Your task to perform on an android device: Turn on the flashlight Image 0: 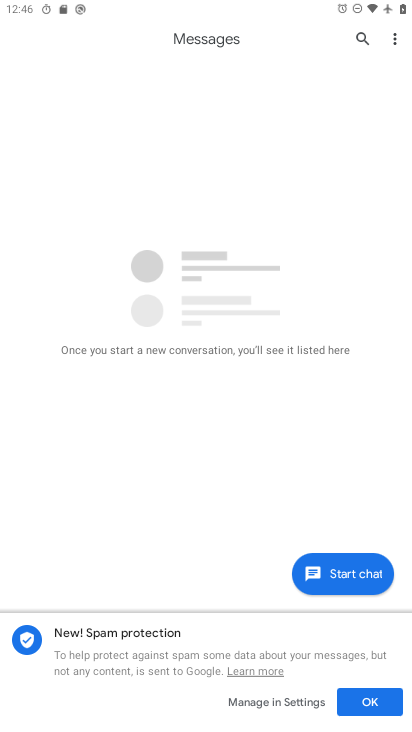
Step 0: press home button
Your task to perform on an android device: Turn on the flashlight Image 1: 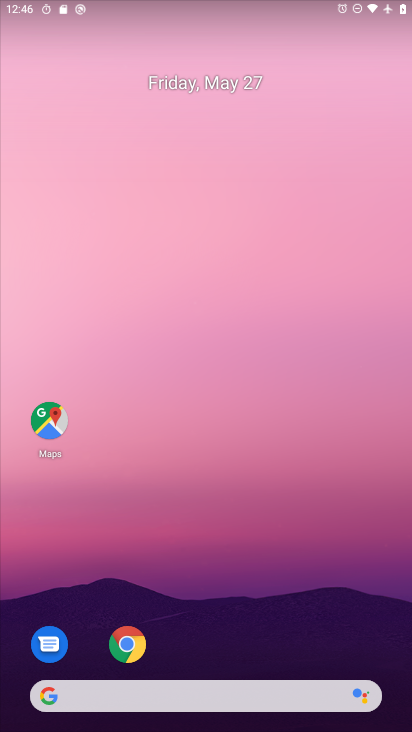
Step 1: drag from (220, 654) to (212, 259)
Your task to perform on an android device: Turn on the flashlight Image 2: 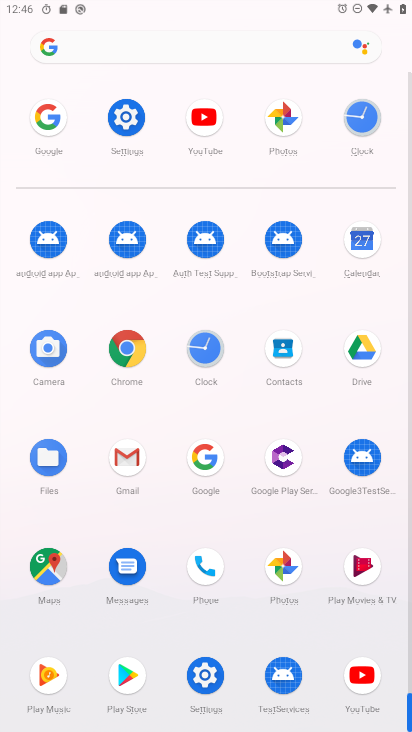
Step 2: click (108, 131)
Your task to perform on an android device: Turn on the flashlight Image 3: 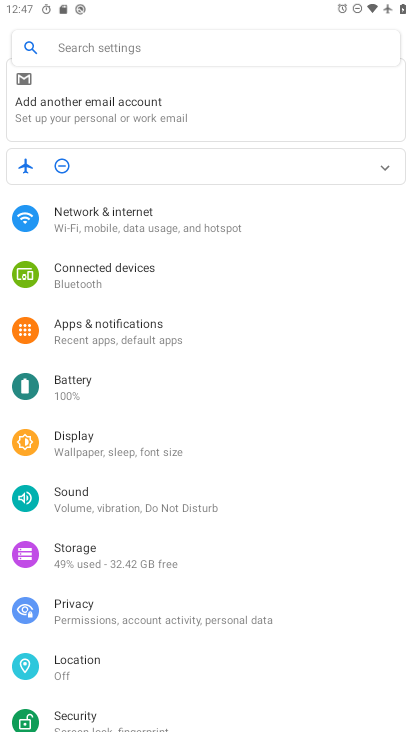
Step 3: task complete